Your task to perform on an android device: Go to wifi settings Image 0: 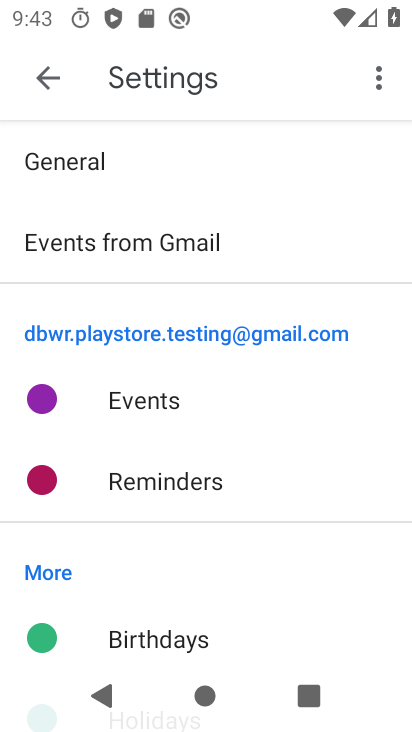
Step 0: press home button
Your task to perform on an android device: Go to wifi settings Image 1: 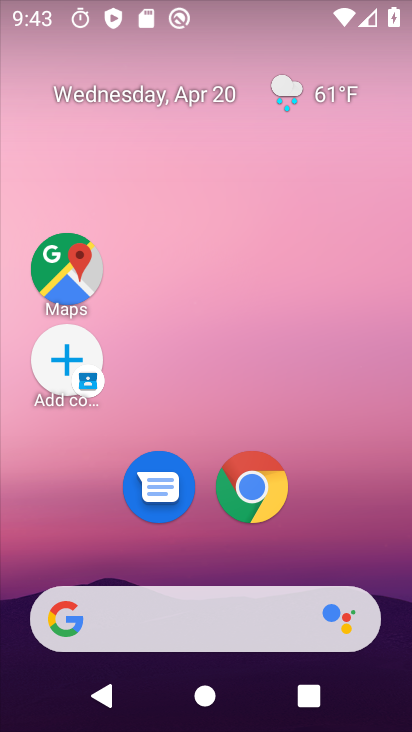
Step 1: drag from (319, 537) to (273, 69)
Your task to perform on an android device: Go to wifi settings Image 2: 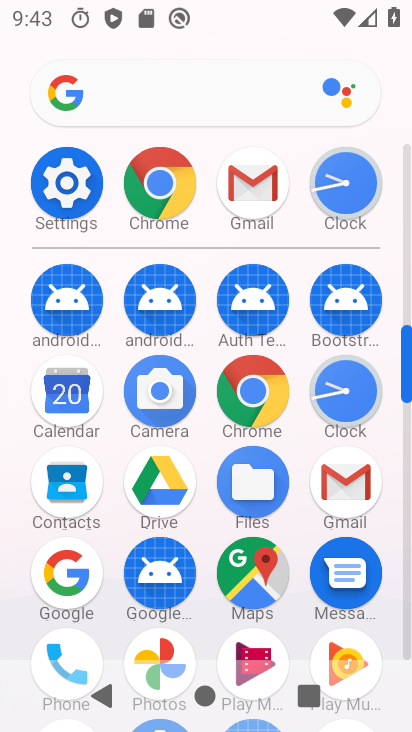
Step 2: click (63, 188)
Your task to perform on an android device: Go to wifi settings Image 3: 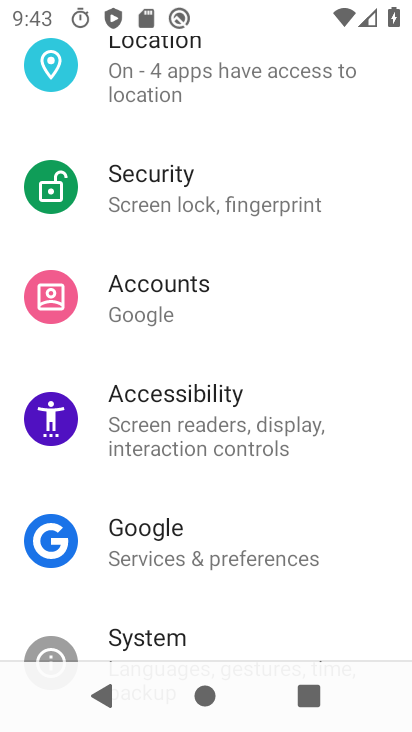
Step 3: drag from (139, 267) to (175, 361)
Your task to perform on an android device: Go to wifi settings Image 4: 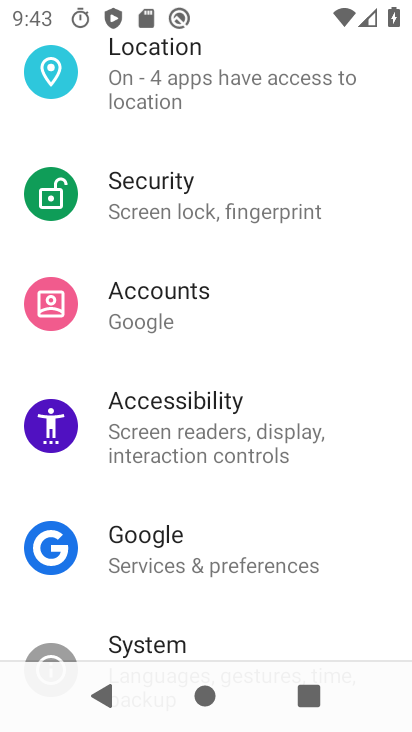
Step 4: drag from (166, 238) to (204, 328)
Your task to perform on an android device: Go to wifi settings Image 5: 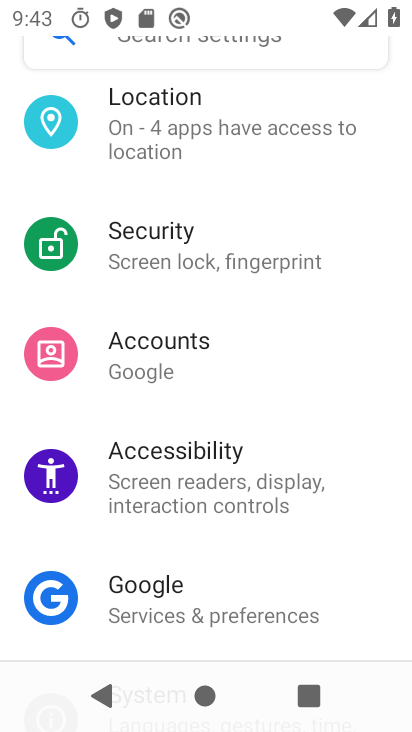
Step 5: drag from (160, 286) to (200, 375)
Your task to perform on an android device: Go to wifi settings Image 6: 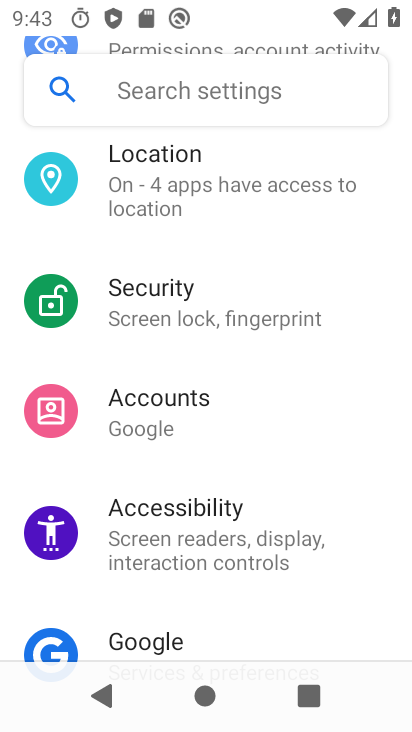
Step 6: drag from (217, 259) to (252, 340)
Your task to perform on an android device: Go to wifi settings Image 7: 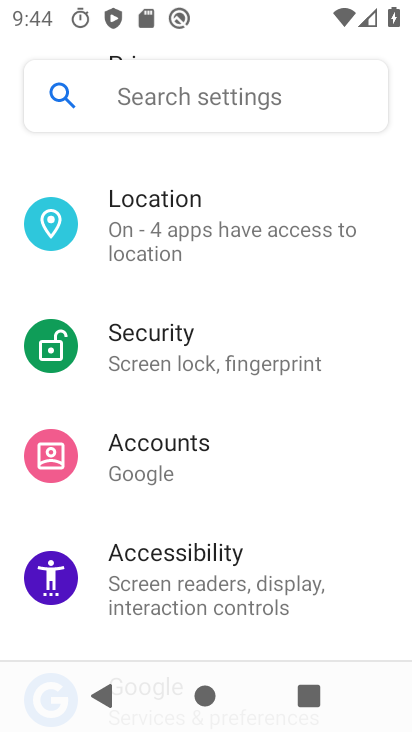
Step 7: drag from (259, 270) to (319, 371)
Your task to perform on an android device: Go to wifi settings Image 8: 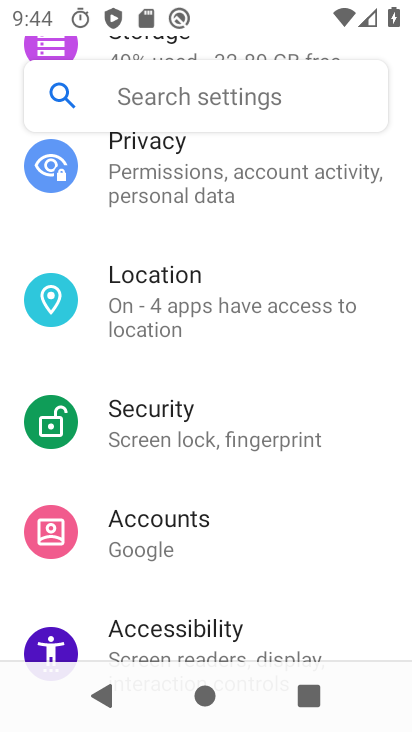
Step 8: drag from (286, 281) to (325, 341)
Your task to perform on an android device: Go to wifi settings Image 9: 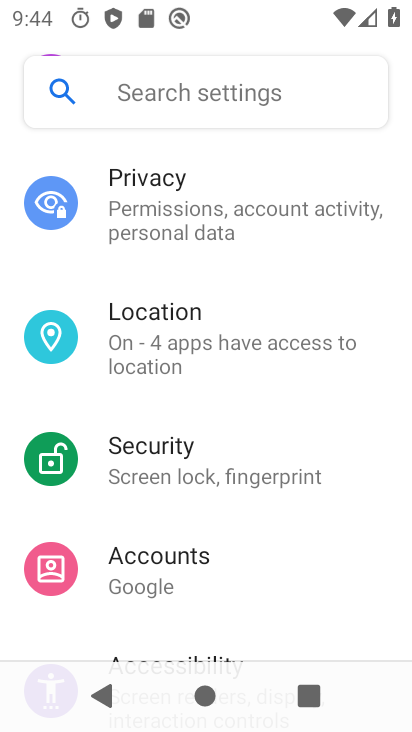
Step 9: drag from (320, 286) to (328, 386)
Your task to perform on an android device: Go to wifi settings Image 10: 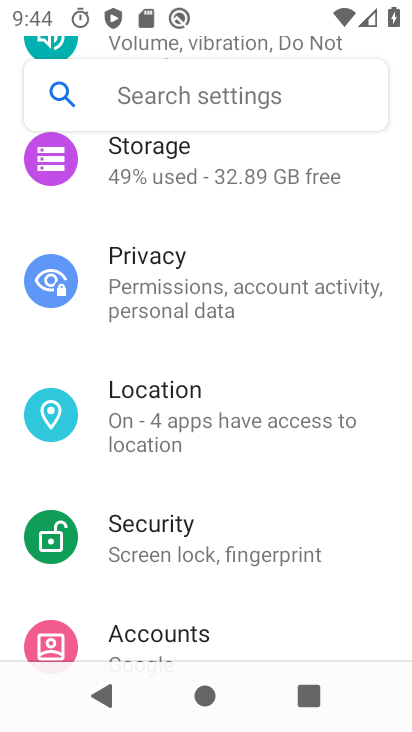
Step 10: drag from (307, 289) to (318, 362)
Your task to perform on an android device: Go to wifi settings Image 11: 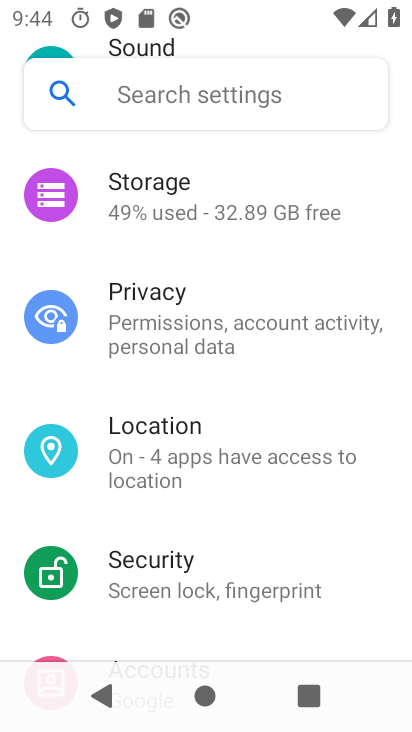
Step 11: drag from (308, 290) to (318, 368)
Your task to perform on an android device: Go to wifi settings Image 12: 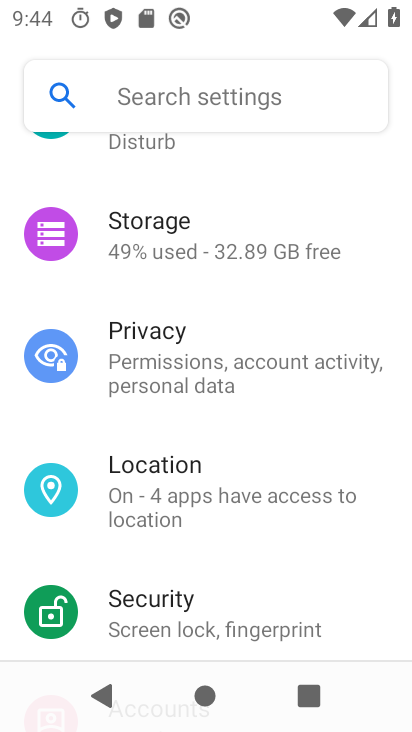
Step 12: drag from (385, 211) to (380, 320)
Your task to perform on an android device: Go to wifi settings Image 13: 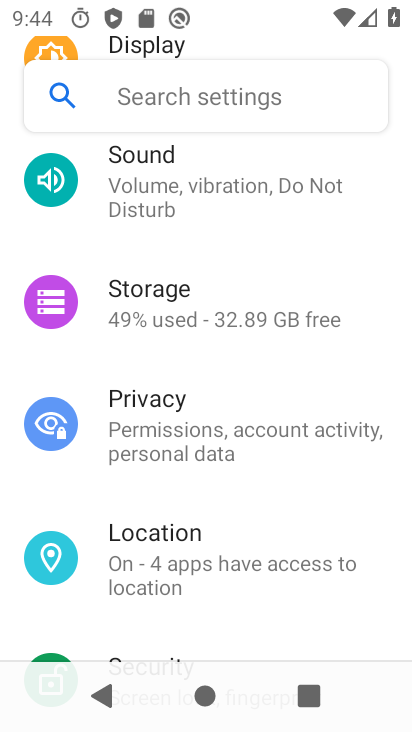
Step 13: drag from (334, 221) to (357, 374)
Your task to perform on an android device: Go to wifi settings Image 14: 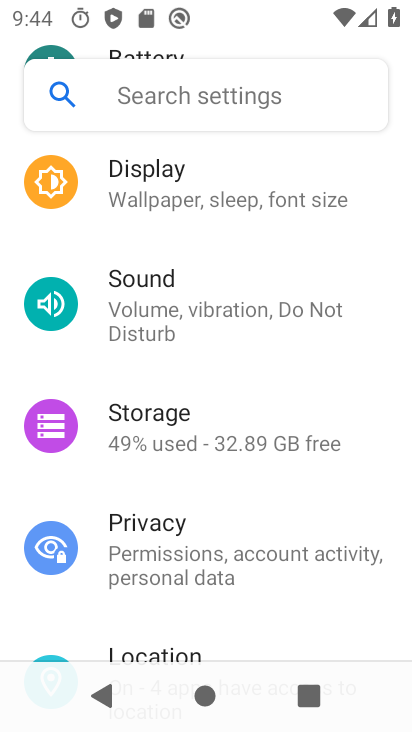
Step 14: drag from (260, 263) to (267, 355)
Your task to perform on an android device: Go to wifi settings Image 15: 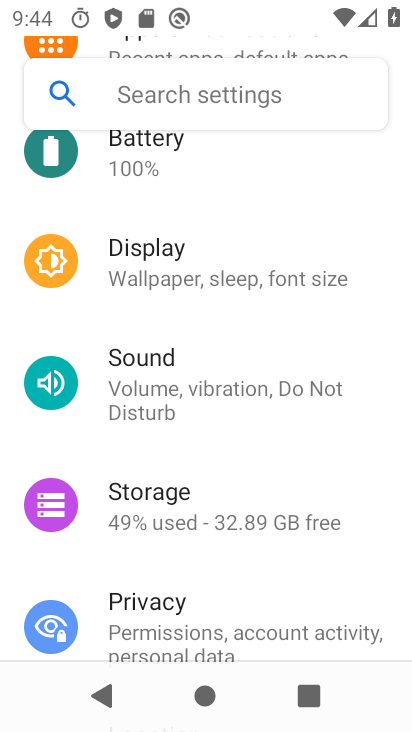
Step 15: drag from (244, 250) to (229, 339)
Your task to perform on an android device: Go to wifi settings Image 16: 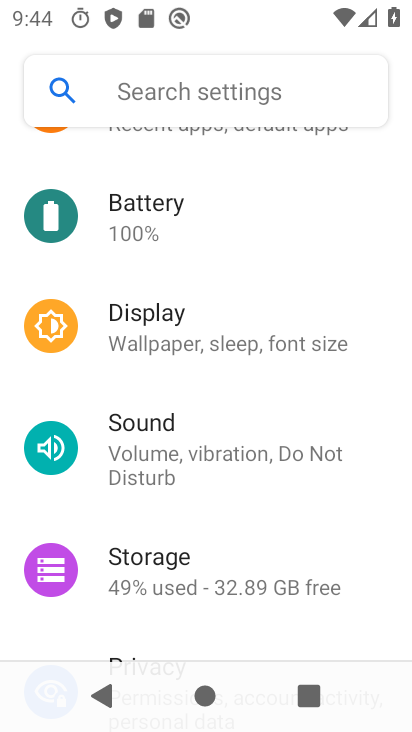
Step 16: drag from (181, 239) to (186, 312)
Your task to perform on an android device: Go to wifi settings Image 17: 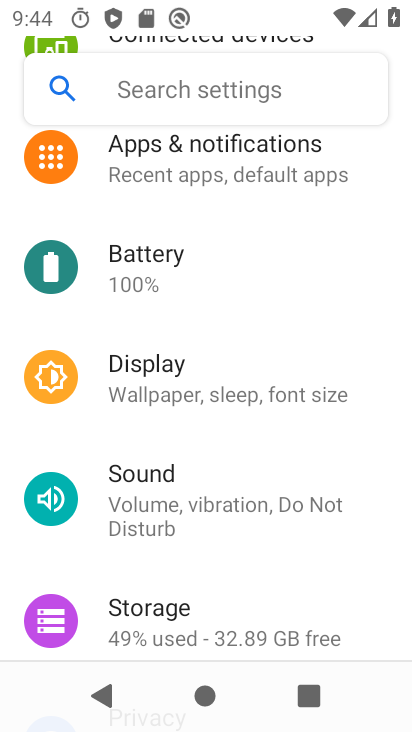
Step 17: drag from (154, 233) to (163, 299)
Your task to perform on an android device: Go to wifi settings Image 18: 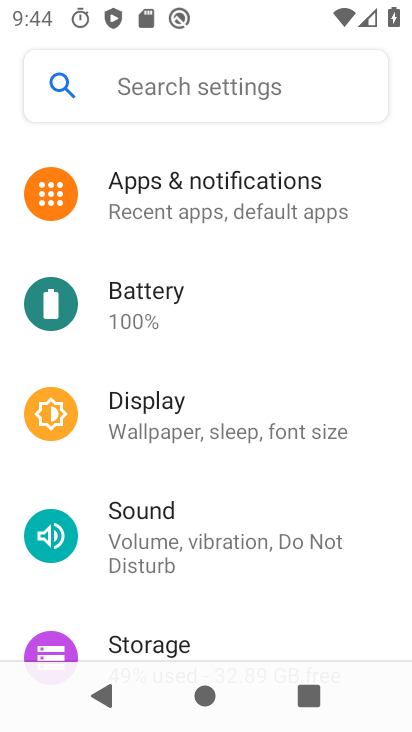
Step 18: drag from (125, 226) to (137, 333)
Your task to perform on an android device: Go to wifi settings Image 19: 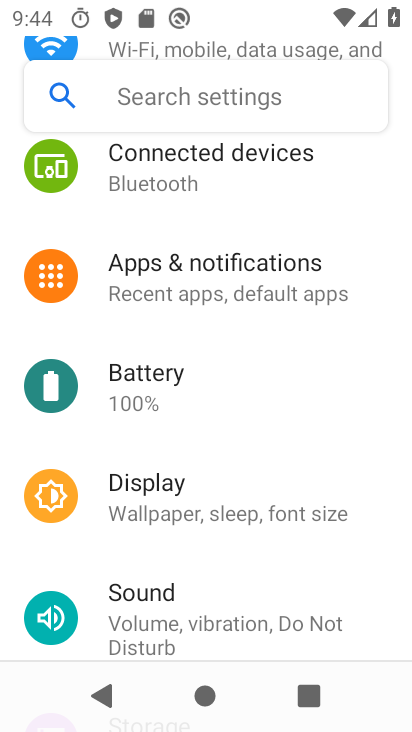
Step 19: drag from (156, 227) to (155, 377)
Your task to perform on an android device: Go to wifi settings Image 20: 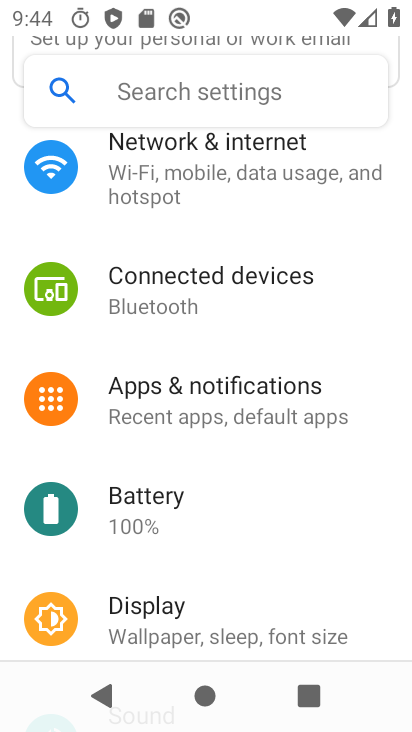
Step 20: click (132, 185)
Your task to perform on an android device: Go to wifi settings Image 21: 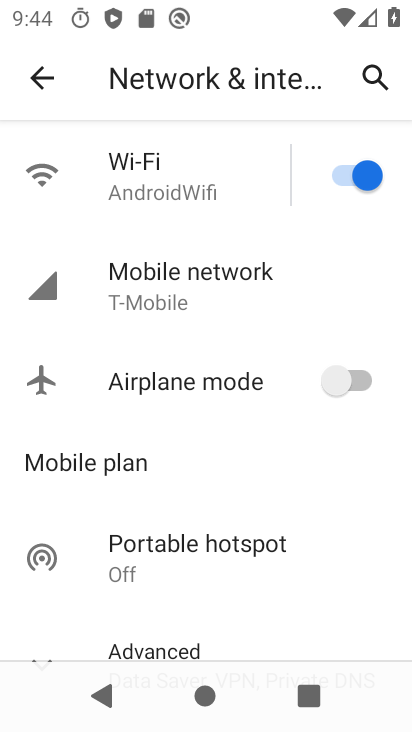
Step 21: click (155, 189)
Your task to perform on an android device: Go to wifi settings Image 22: 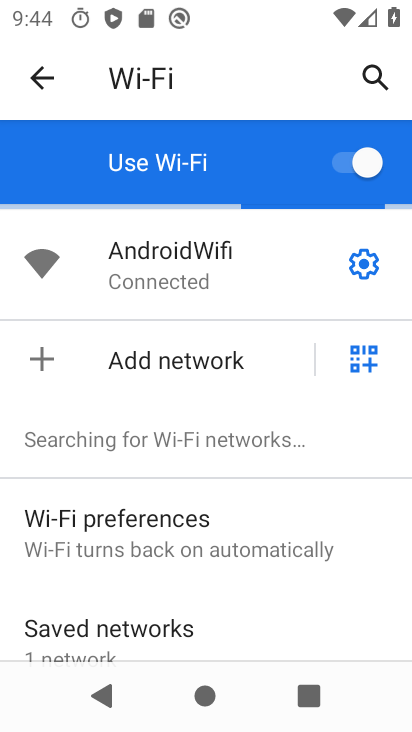
Step 22: task complete